Your task to perform on an android device: Clear the cart on costco.com. Image 0: 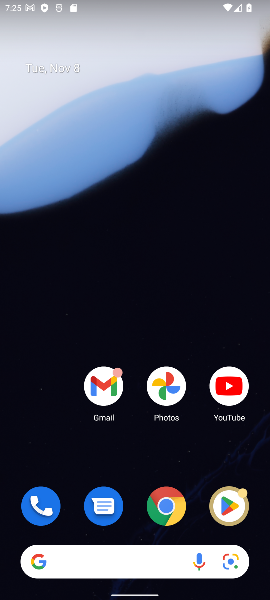
Step 0: drag from (56, 469) to (24, 106)
Your task to perform on an android device: Clear the cart on costco.com. Image 1: 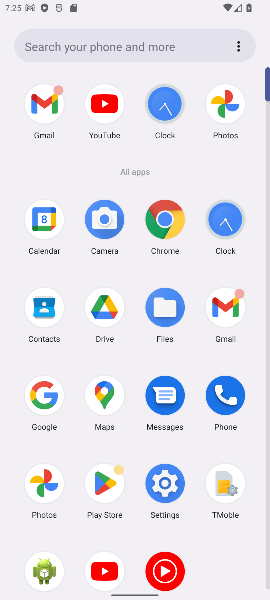
Step 1: click (154, 209)
Your task to perform on an android device: Clear the cart on costco.com. Image 2: 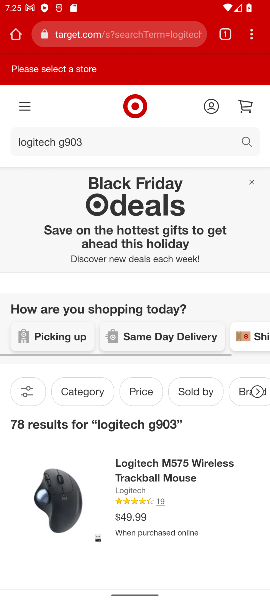
Step 2: click (137, 26)
Your task to perform on an android device: Clear the cart on costco.com. Image 3: 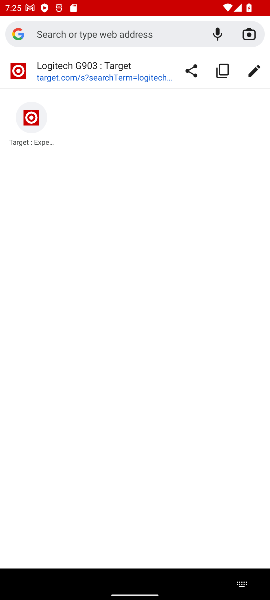
Step 3: type "costco.com."
Your task to perform on an android device: Clear the cart on costco.com. Image 4: 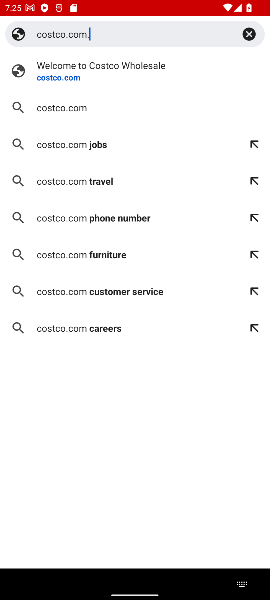
Step 4: press enter
Your task to perform on an android device: Clear the cart on costco.com. Image 5: 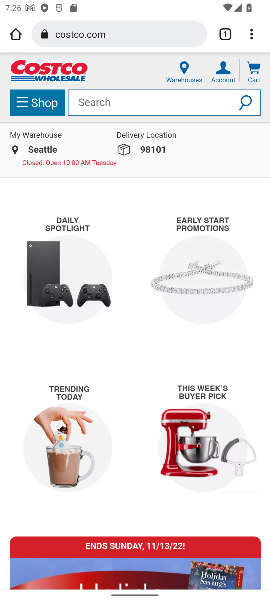
Step 5: click (256, 72)
Your task to perform on an android device: Clear the cart on costco.com. Image 6: 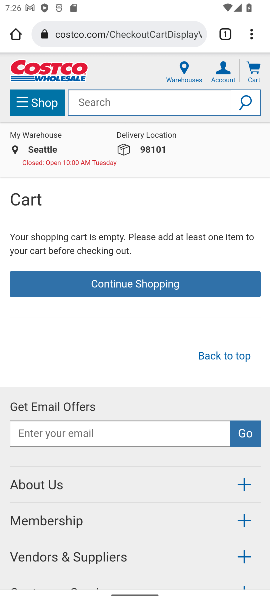
Step 6: task complete